Your task to perform on an android device: visit the assistant section in the google photos Image 0: 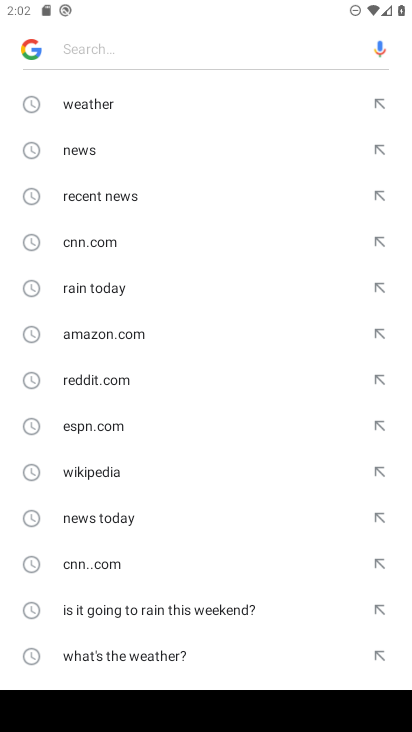
Step 0: press home button
Your task to perform on an android device: visit the assistant section in the google photos Image 1: 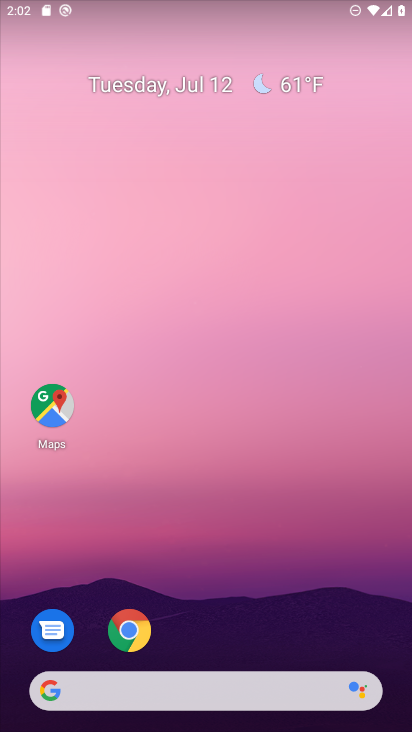
Step 1: drag from (212, 639) to (210, 217)
Your task to perform on an android device: visit the assistant section in the google photos Image 2: 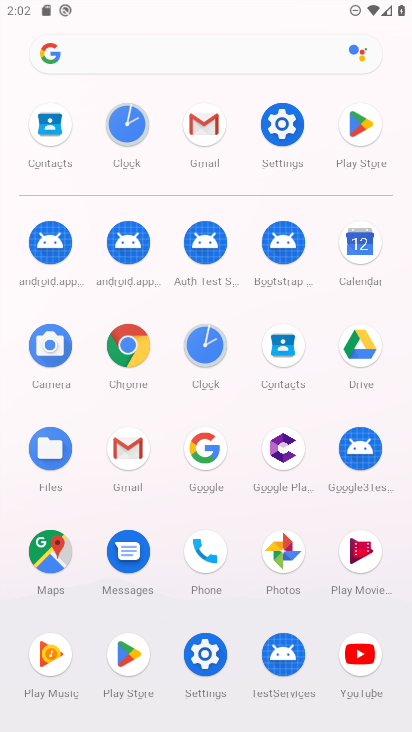
Step 2: click (263, 536)
Your task to perform on an android device: visit the assistant section in the google photos Image 3: 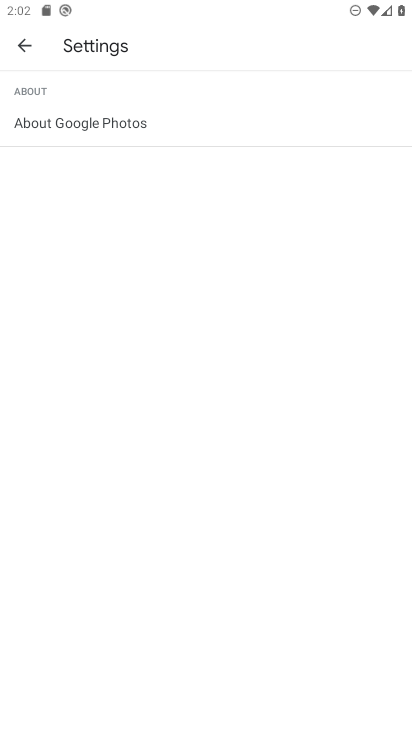
Step 3: click (21, 48)
Your task to perform on an android device: visit the assistant section in the google photos Image 4: 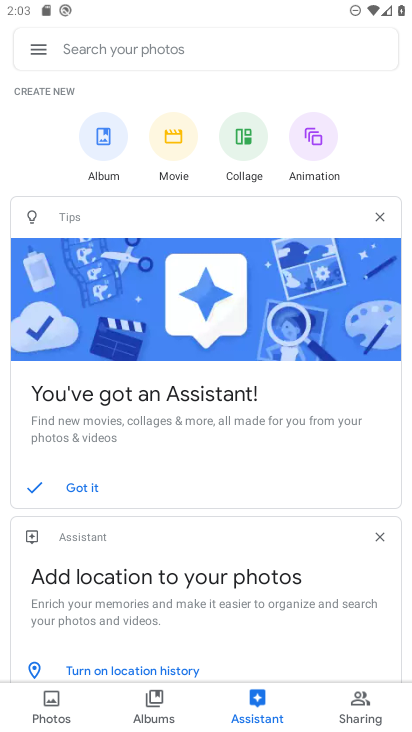
Step 4: task complete